Your task to perform on an android device: Open Google Image 0: 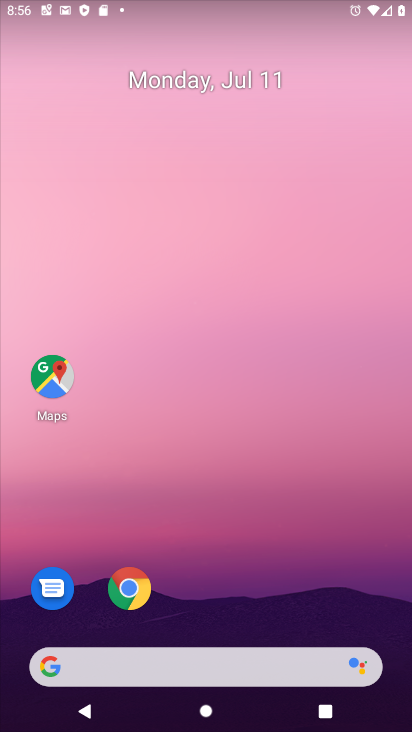
Step 0: drag from (177, 651) to (328, 165)
Your task to perform on an android device: Open Google Image 1: 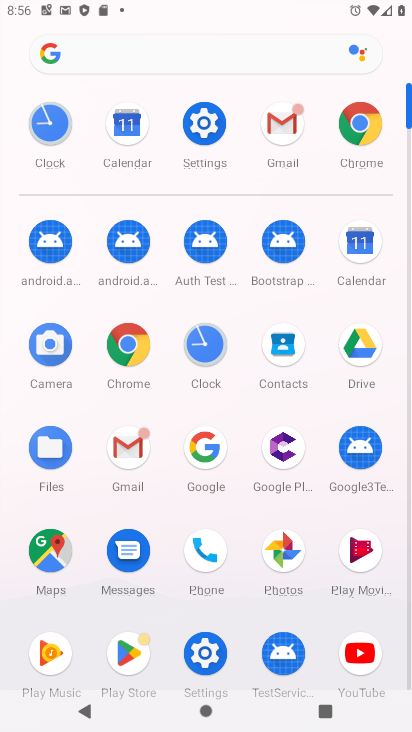
Step 1: click (206, 450)
Your task to perform on an android device: Open Google Image 2: 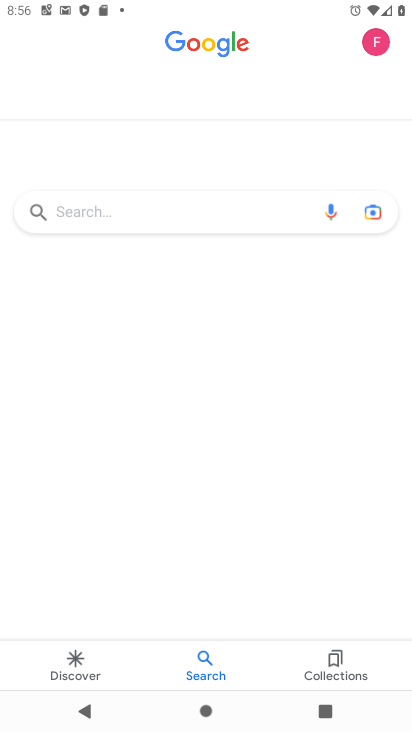
Step 2: click (89, 671)
Your task to perform on an android device: Open Google Image 3: 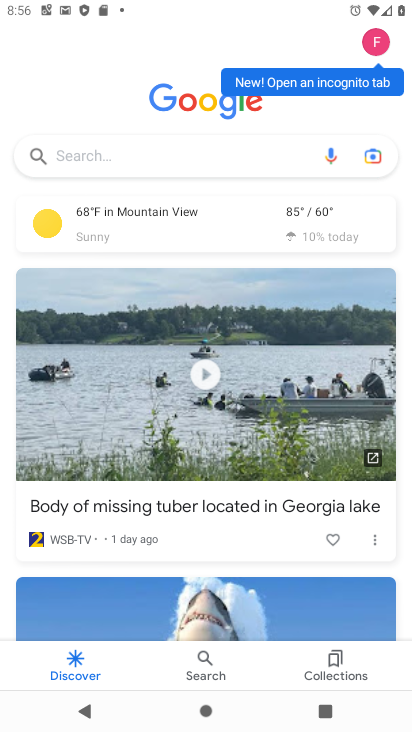
Step 3: task complete